Your task to perform on an android device: open app "Walmart Shopping & Grocery" Image 0: 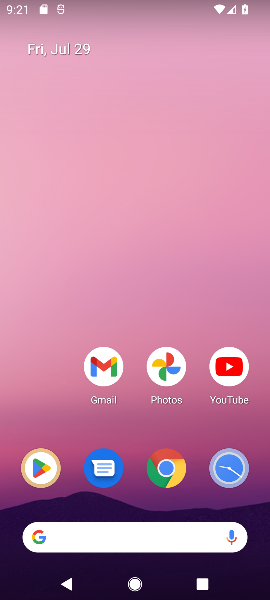
Step 0: click (39, 466)
Your task to perform on an android device: open app "Walmart Shopping & Grocery" Image 1: 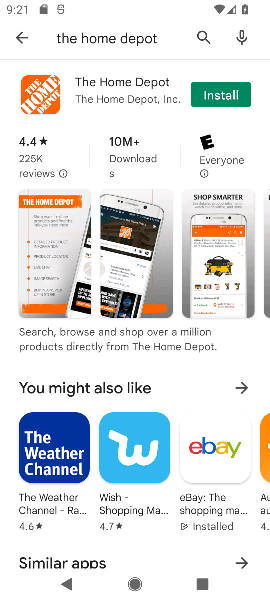
Step 1: click (201, 37)
Your task to perform on an android device: open app "Walmart Shopping & Grocery" Image 2: 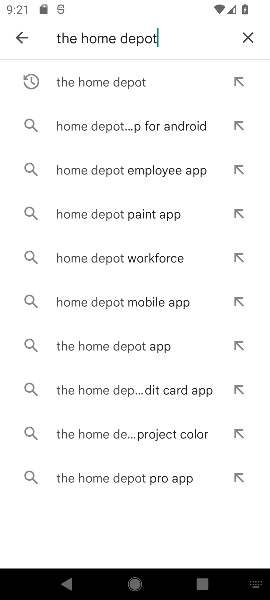
Step 2: click (245, 36)
Your task to perform on an android device: open app "Walmart Shopping & Grocery" Image 3: 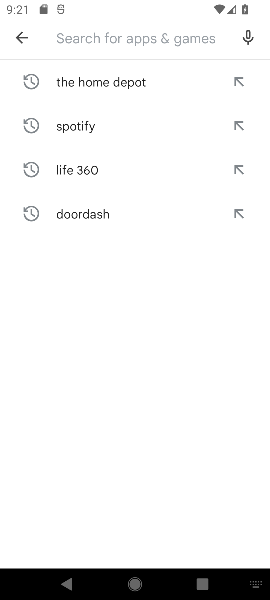
Step 3: click (129, 37)
Your task to perform on an android device: open app "Walmart Shopping & Grocery" Image 4: 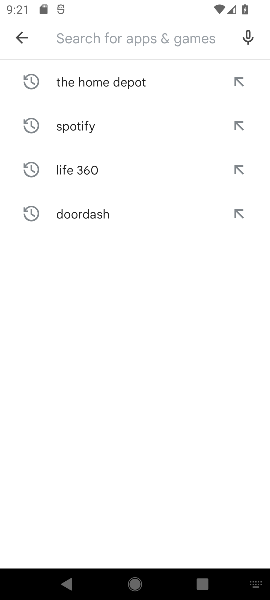
Step 4: type "walmart"
Your task to perform on an android device: open app "Walmart Shopping & Grocery" Image 5: 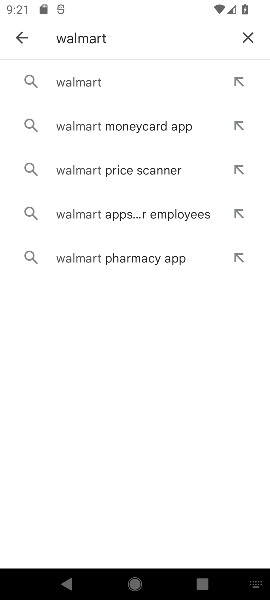
Step 5: click (94, 74)
Your task to perform on an android device: open app "Walmart Shopping & Grocery" Image 6: 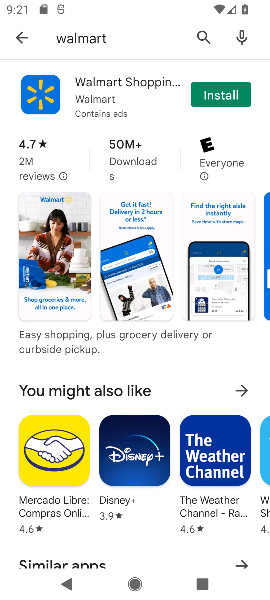
Step 6: task complete